Your task to perform on an android device: Open wifi settings Image 0: 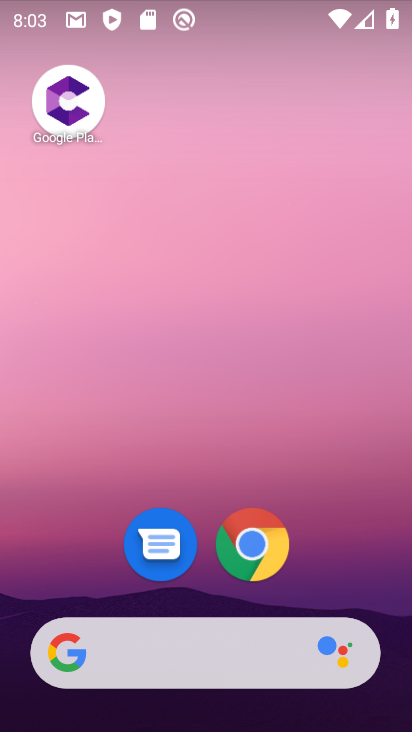
Step 0: drag from (204, 646) to (236, 94)
Your task to perform on an android device: Open wifi settings Image 1: 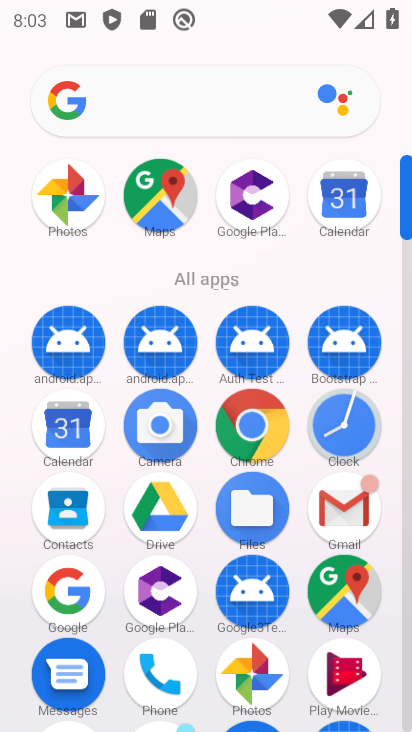
Step 1: drag from (193, 578) to (176, 101)
Your task to perform on an android device: Open wifi settings Image 2: 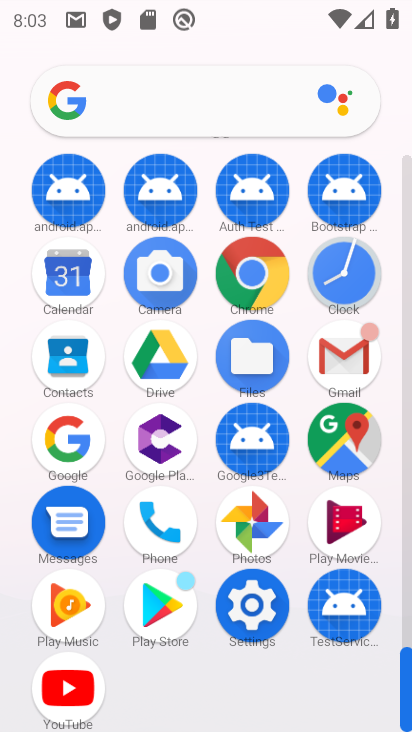
Step 2: click (245, 630)
Your task to perform on an android device: Open wifi settings Image 3: 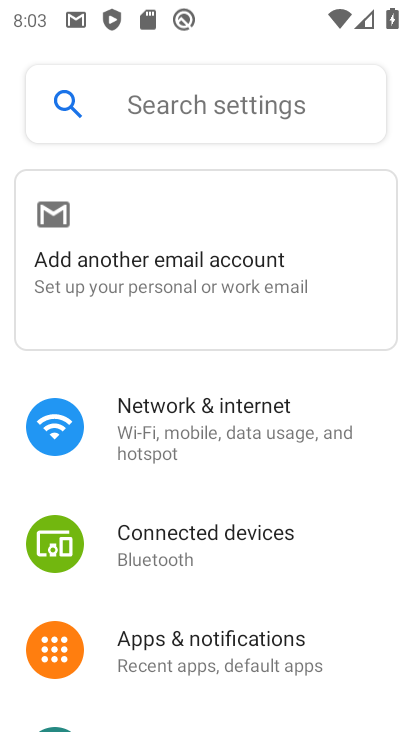
Step 3: click (172, 416)
Your task to perform on an android device: Open wifi settings Image 4: 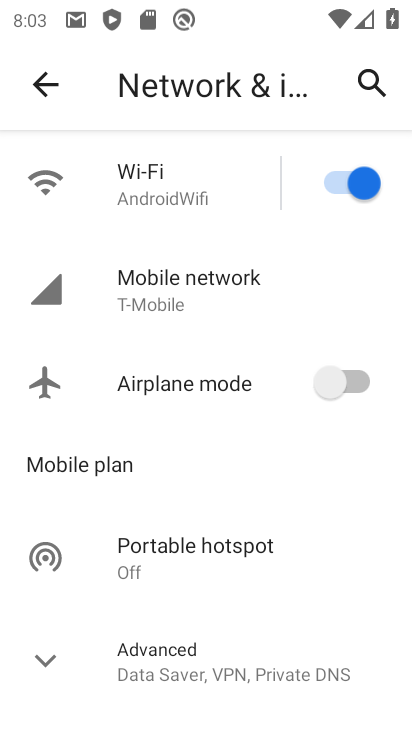
Step 4: click (169, 205)
Your task to perform on an android device: Open wifi settings Image 5: 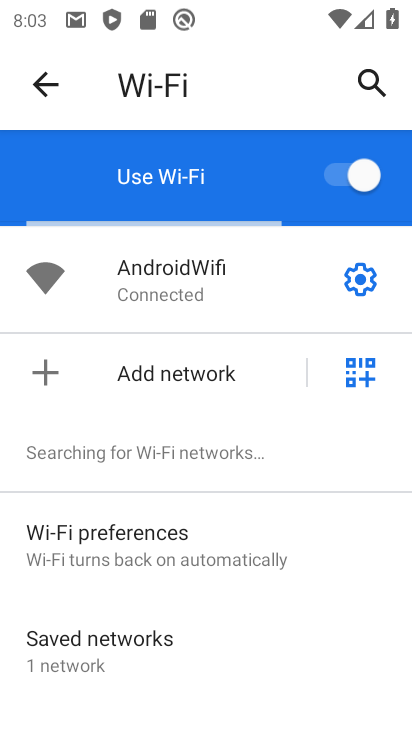
Step 5: task complete